Your task to perform on an android device: Search for flights from Chicago to London Image 0: 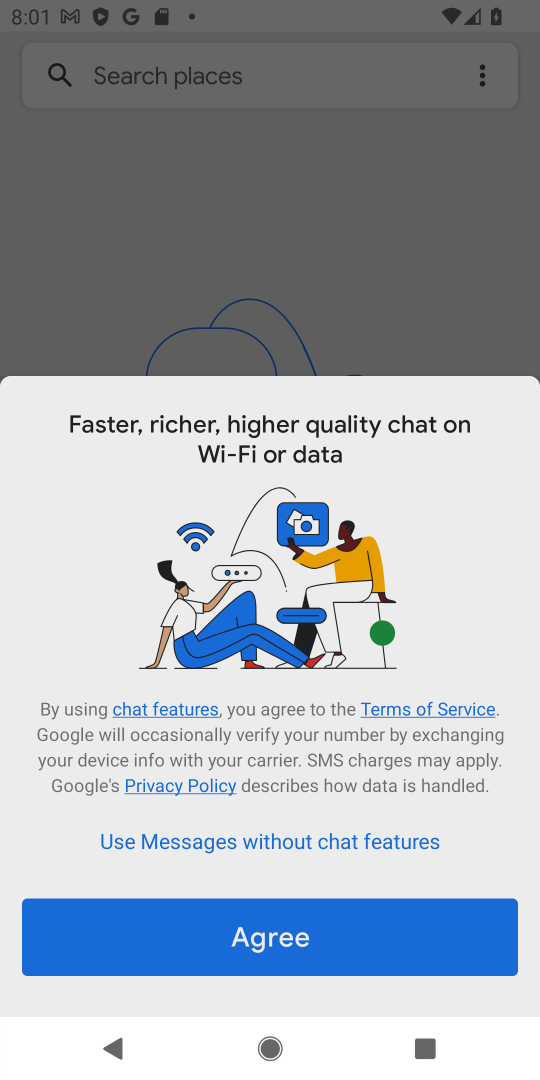
Step 0: click (286, 939)
Your task to perform on an android device: Search for flights from Chicago to London Image 1: 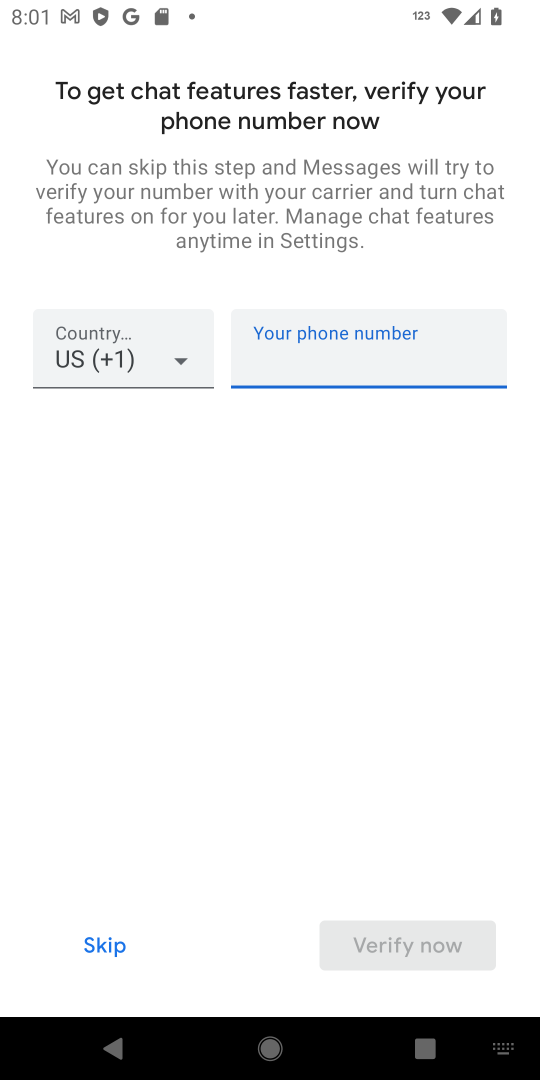
Step 1: click (115, 936)
Your task to perform on an android device: Search for flights from Chicago to London Image 2: 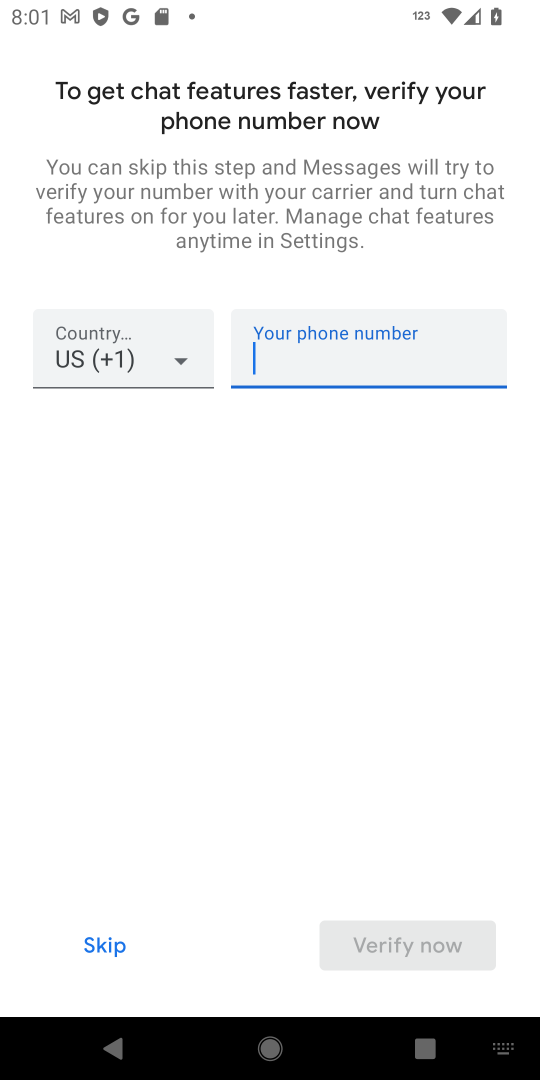
Step 2: press home button
Your task to perform on an android device: Search for flights from Chicago to London Image 3: 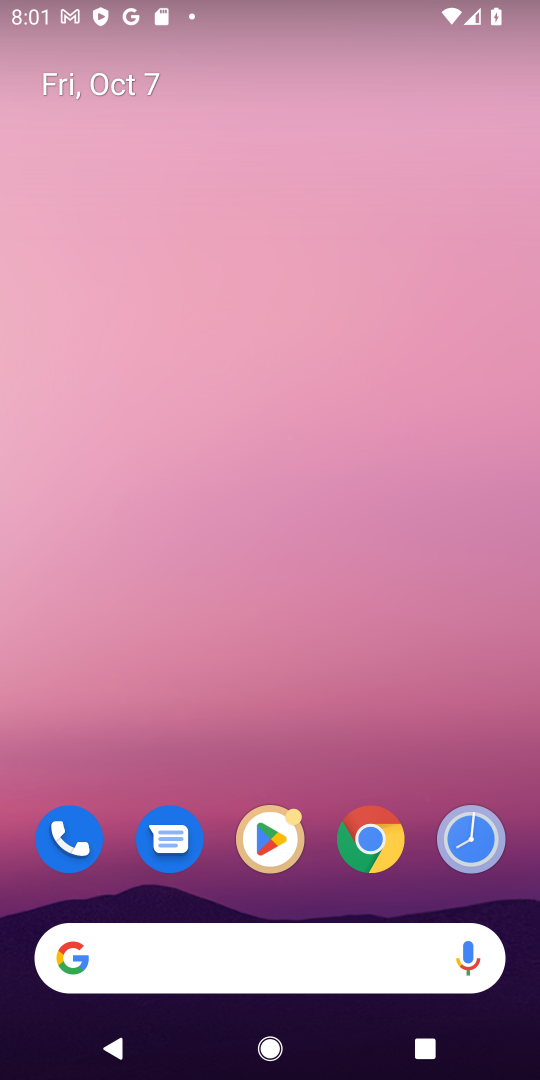
Step 3: click (380, 834)
Your task to perform on an android device: Search for flights from Chicago to London Image 4: 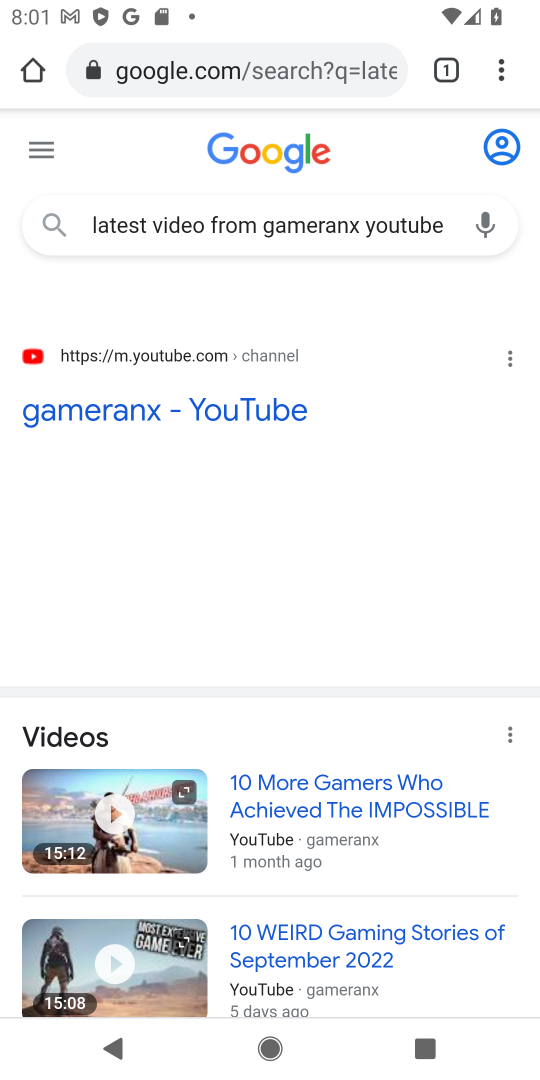
Step 4: click (318, 57)
Your task to perform on an android device: Search for flights from Chicago to London Image 5: 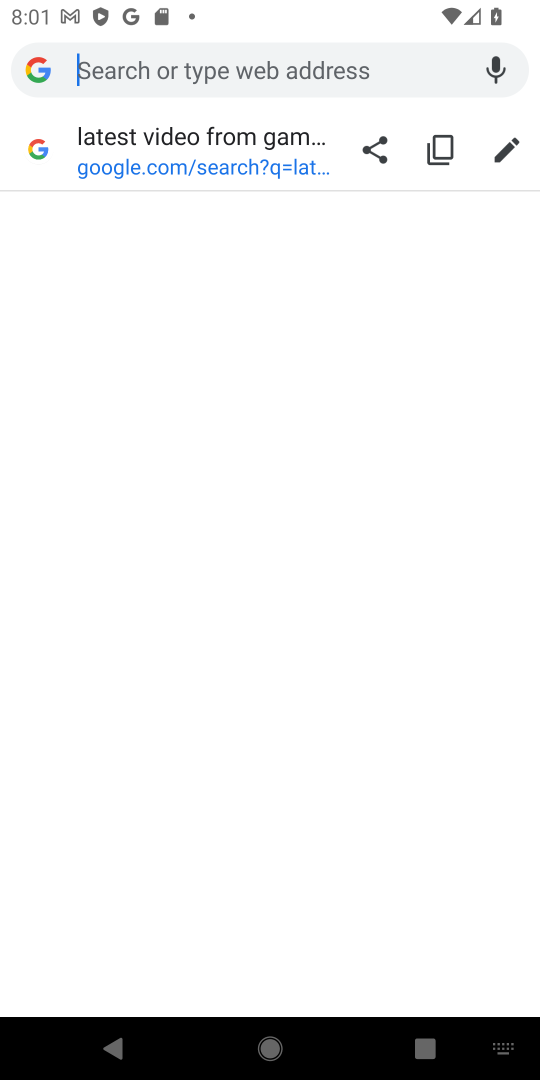
Step 5: type "flight search"
Your task to perform on an android device: Search for flights from Chicago to London Image 6: 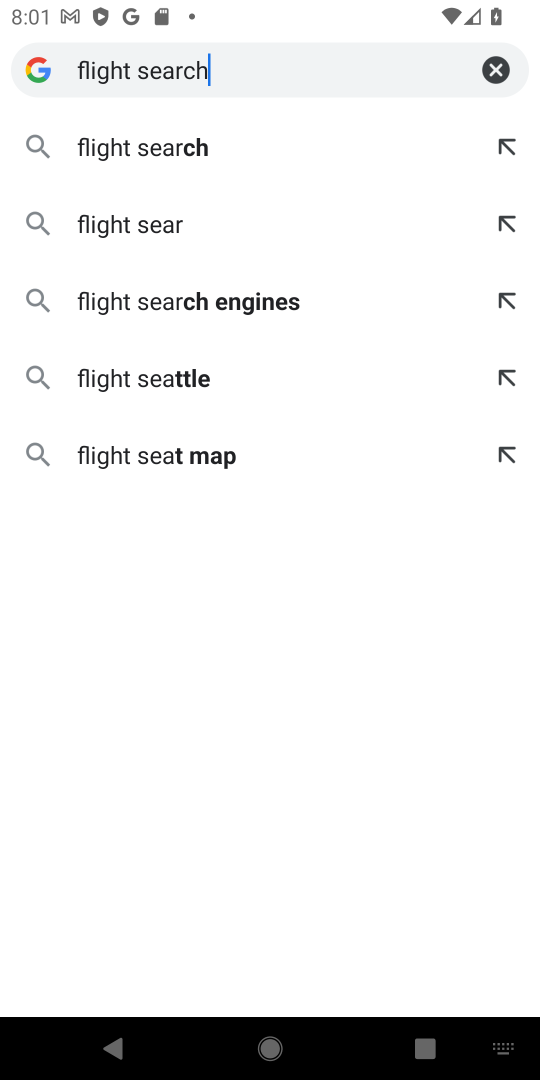
Step 6: type ""
Your task to perform on an android device: Search for flights from Chicago to London Image 7: 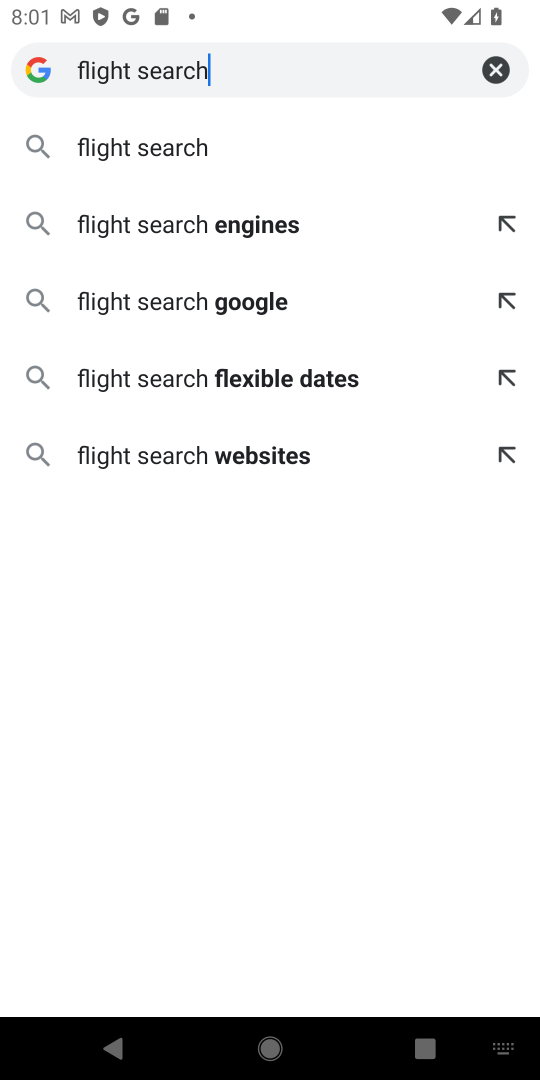
Step 7: click (171, 136)
Your task to perform on an android device: Search for flights from Chicago to London Image 8: 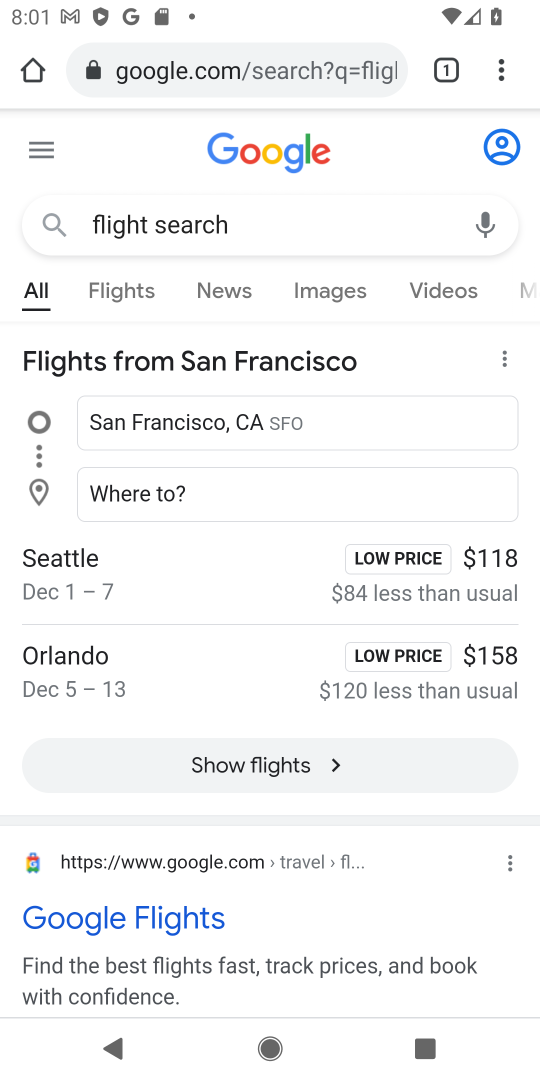
Step 8: drag from (307, 759) to (305, 969)
Your task to perform on an android device: Search for flights from Chicago to London Image 9: 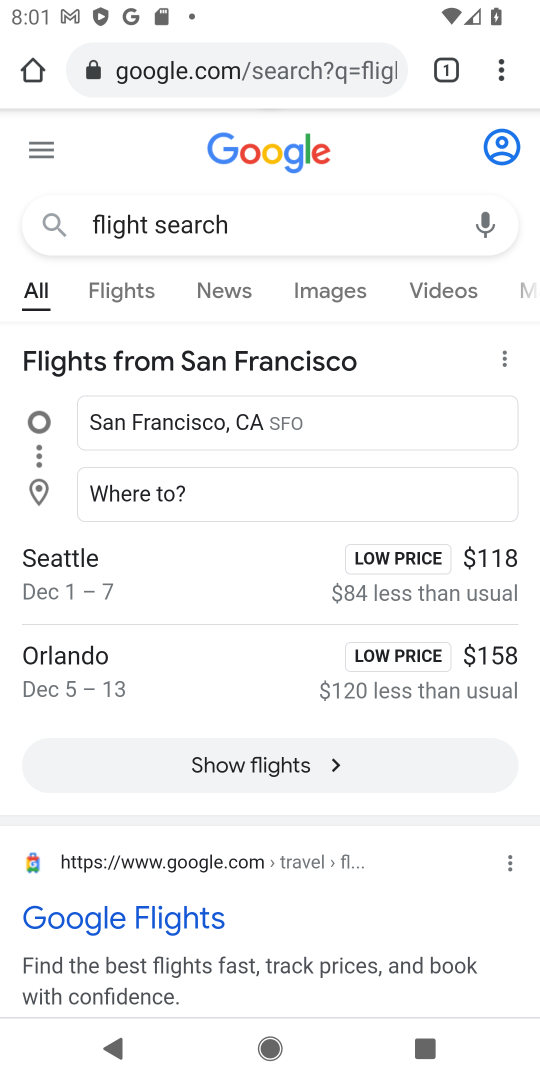
Step 9: drag from (355, 950) to (437, 405)
Your task to perform on an android device: Search for flights from Chicago to London Image 10: 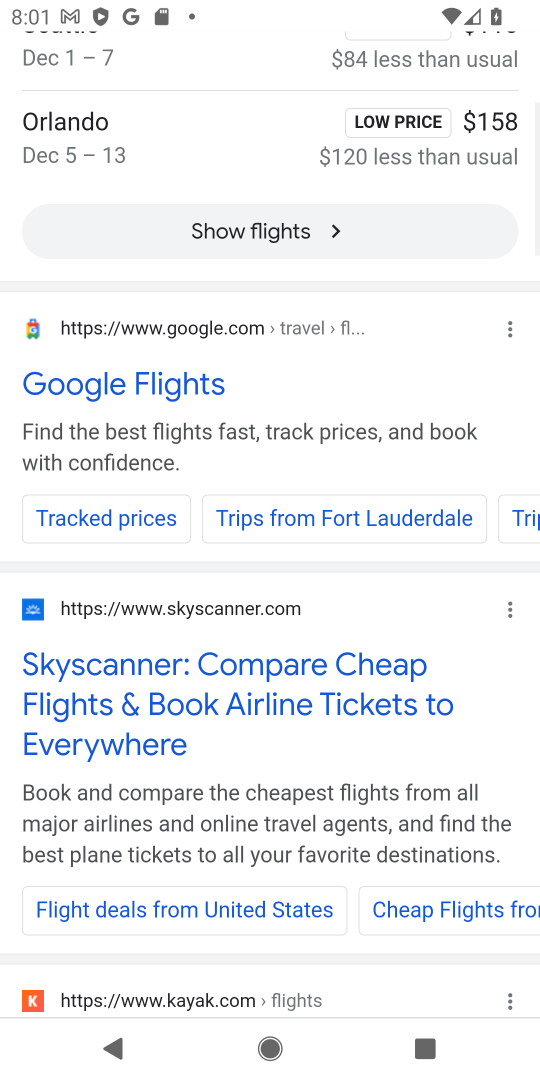
Step 10: drag from (336, 523) to (336, 472)
Your task to perform on an android device: Search for flights from Chicago to London Image 11: 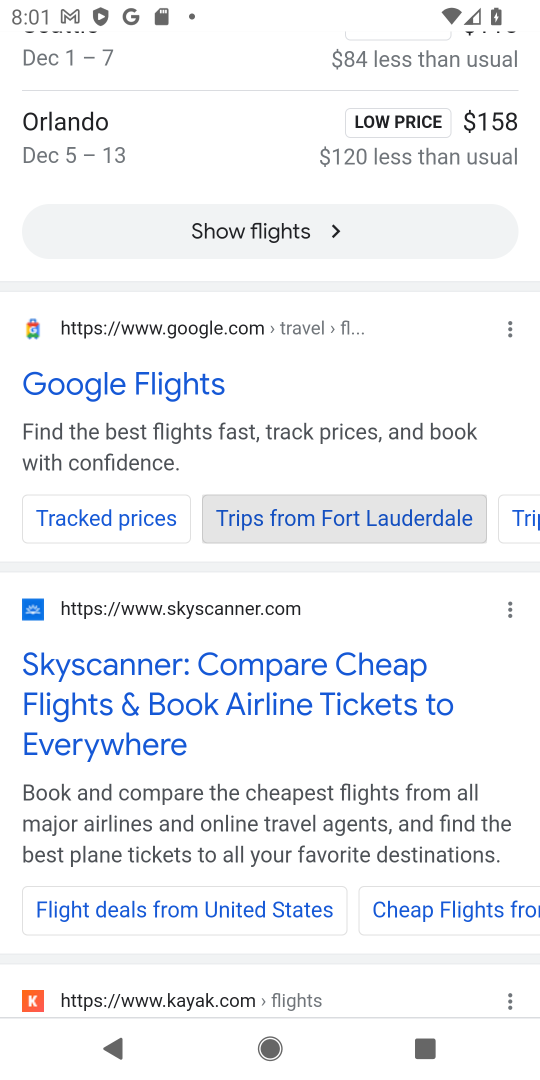
Step 11: drag from (212, 911) to (321, 425)
Your task to perform on an android device: Search for flights from Chicago to London Image 12: 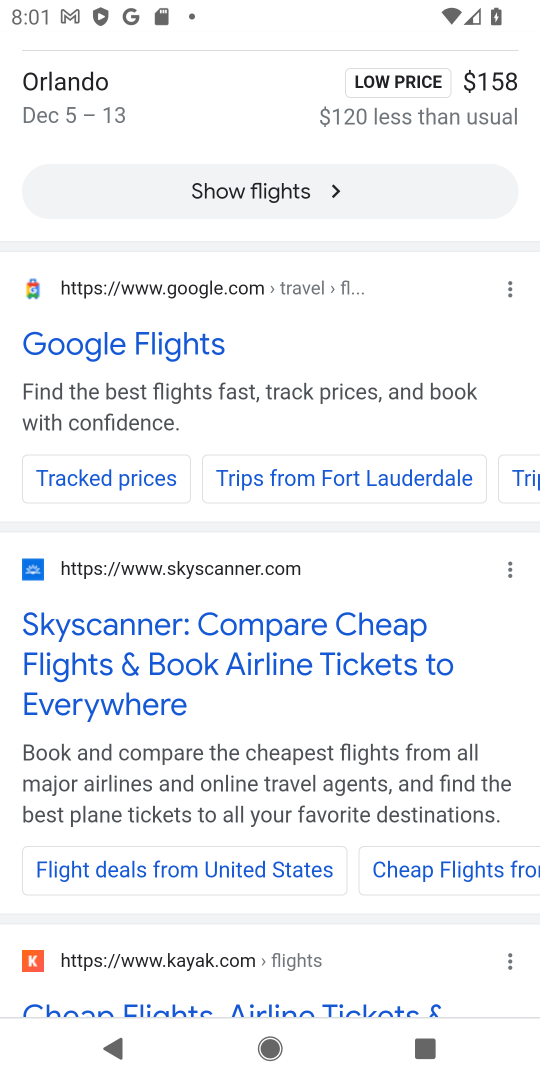
Step 12: drag from (267, 606) to (310, 392)
Your task to perform on an android device: Search for flights from Chicago to London Image 13: 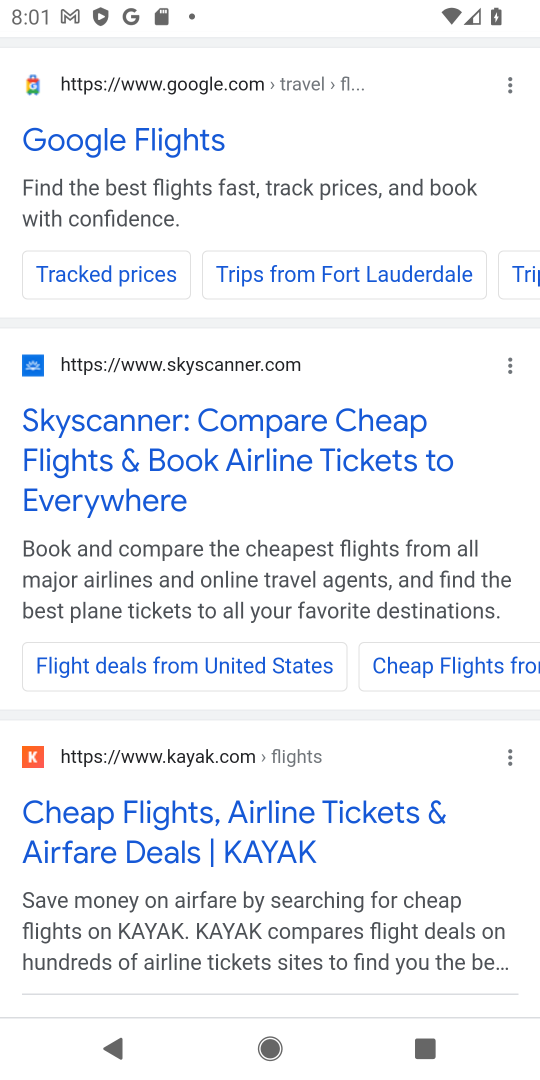
Step 13: click (153, 807)
Your task to perform on an android device: Search for flights from Chicago to London Image 14: 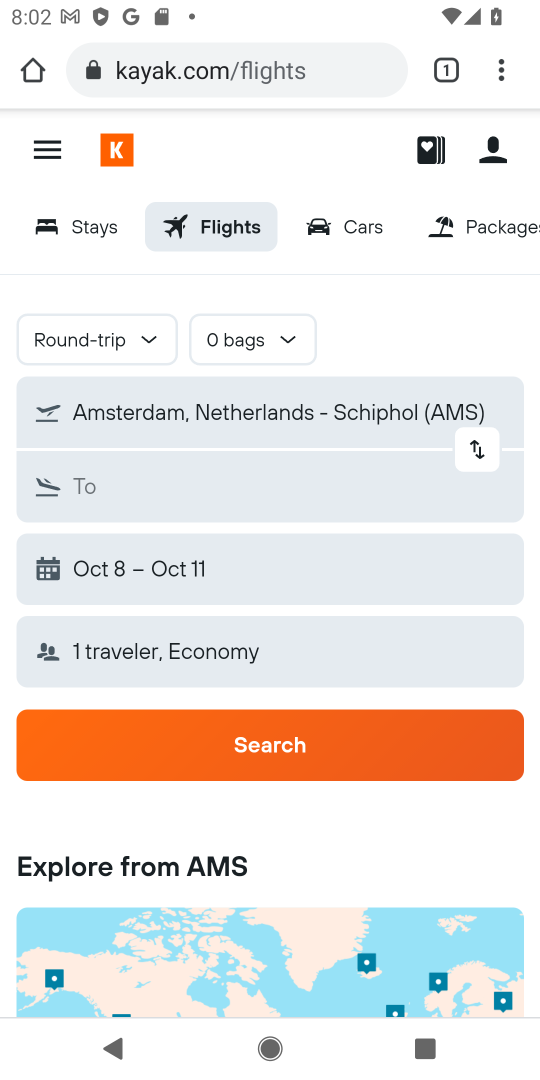
Step 14: click (357, 407)
Your task to perform on an android device: Search for flights from Chicago to London Image 15: 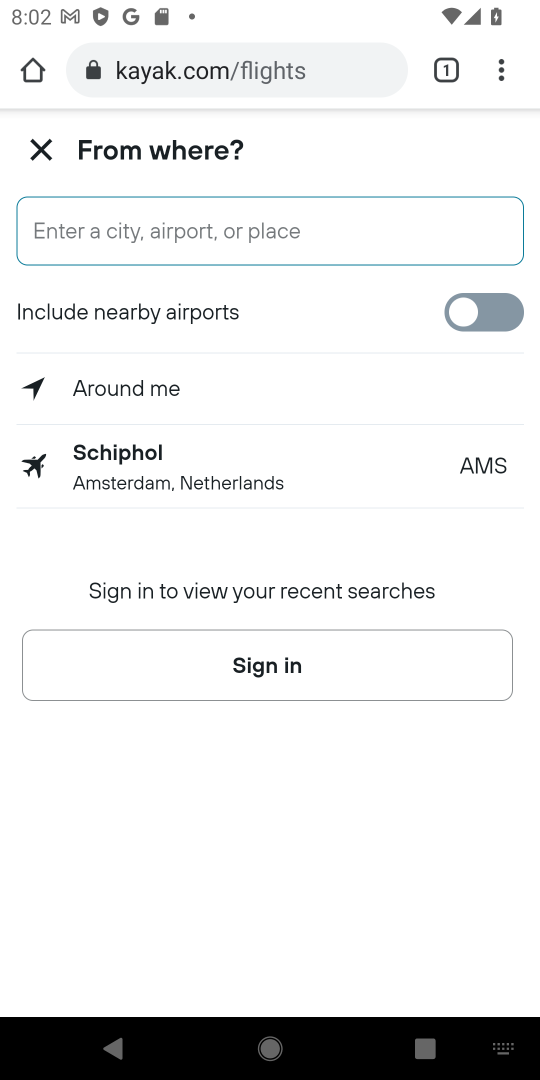
Step 15: type "chicago"
Your task to perform on an android device: Search for flights from Chicago to London Image 16: 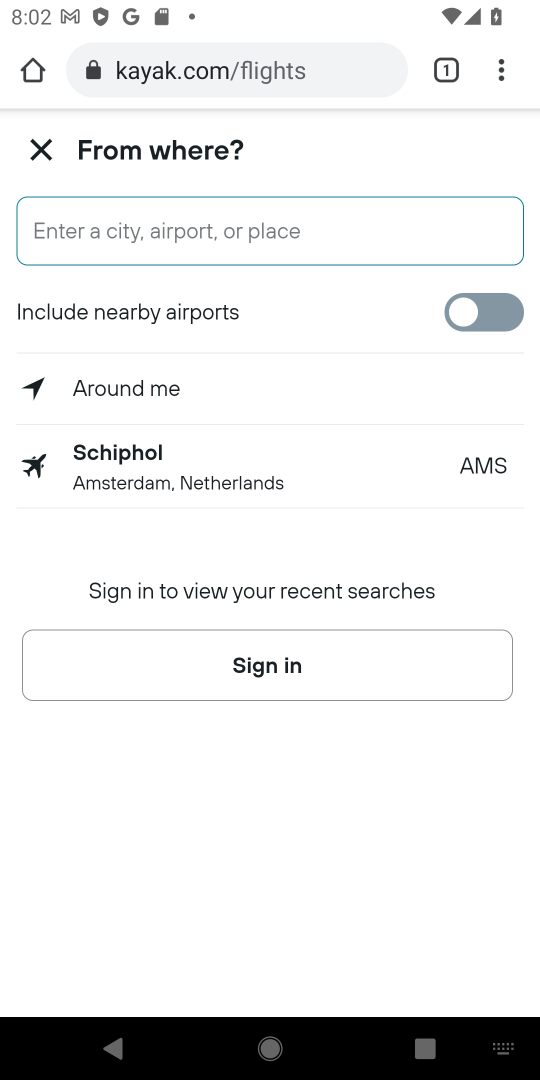
Step 16: click (301, 662)
Your task to perform on an android device: Search for flights from Chicago to London Image 17: 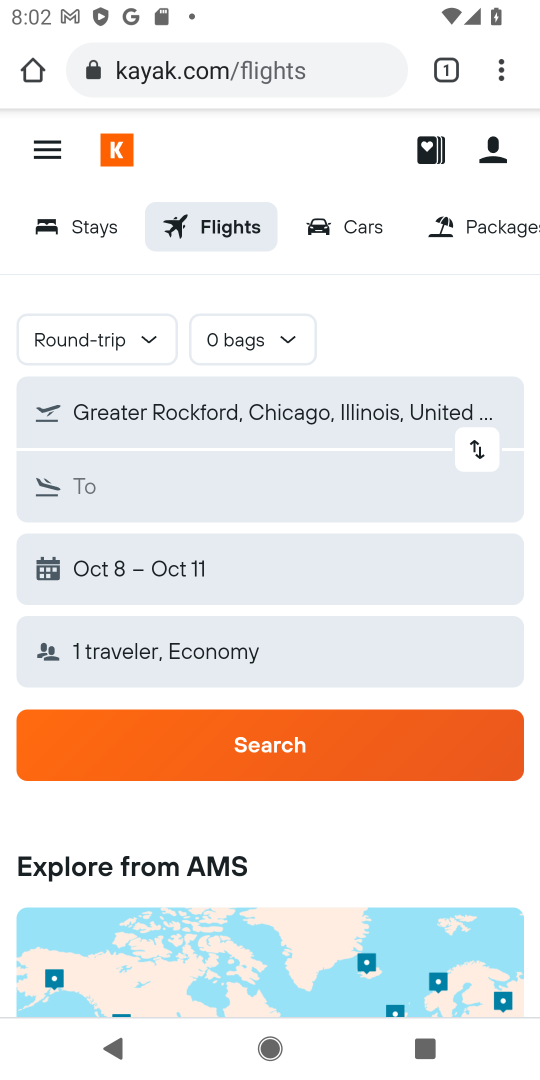
Step 17: click (65, 490)
Your task to perform on an android device: Search for flights from Chicago to London Image 18: 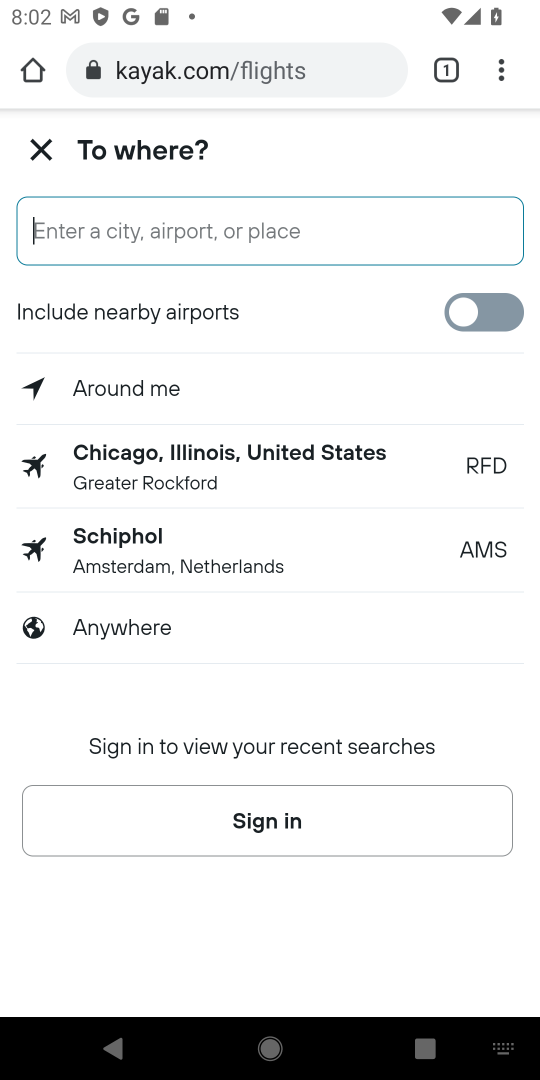
Step 18: type "london"
Your task to perform on an android device: Search for flights from Chicago to London Image 19: 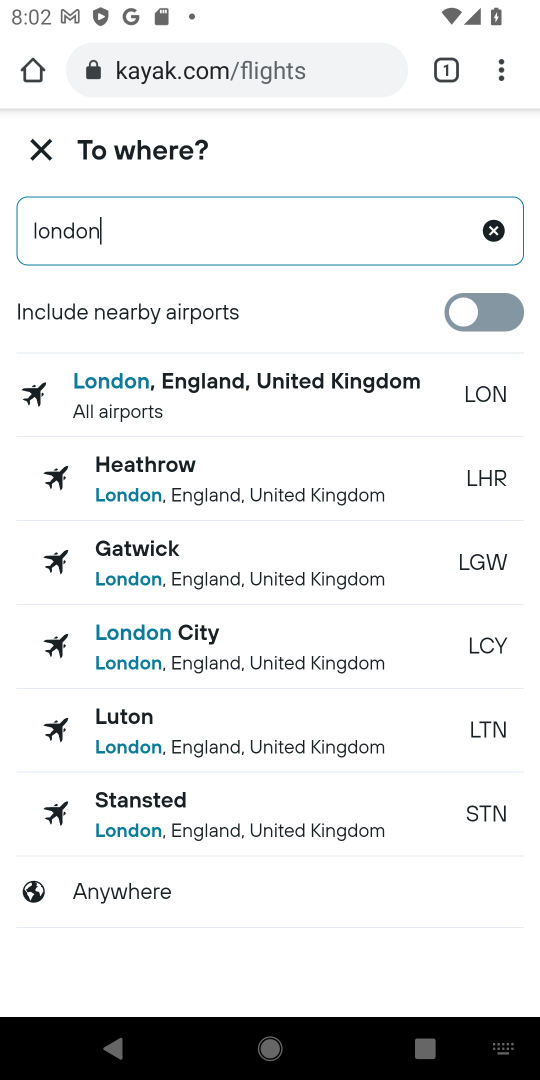
Step 19: click (223, 386)
Your task to perform on an android device: Search for flights from Chicago to London Image 20: 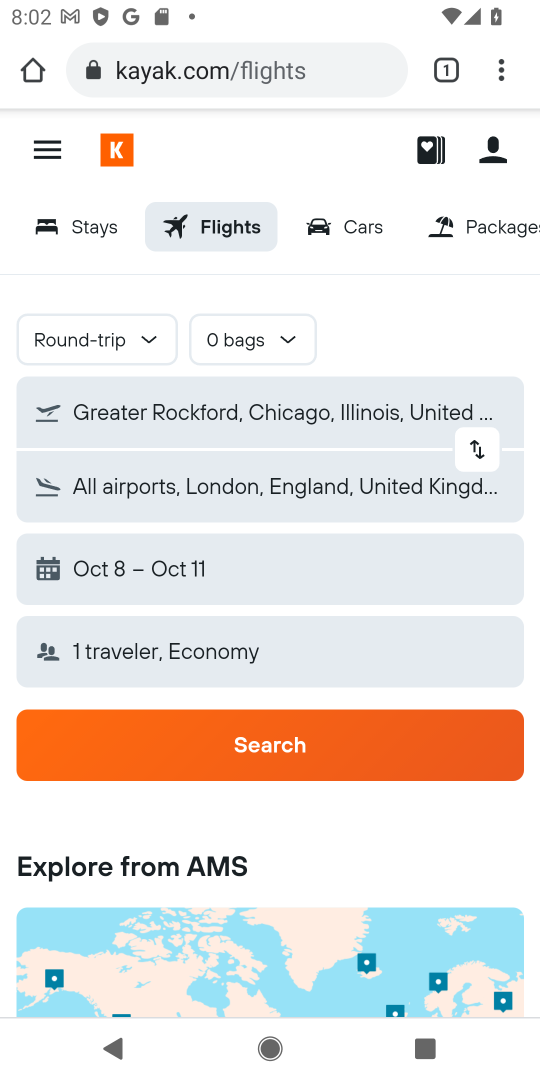
Step 20: click (160, 565)
Your task to perform on an android device: Search for flights from Chicago to London Image 21: 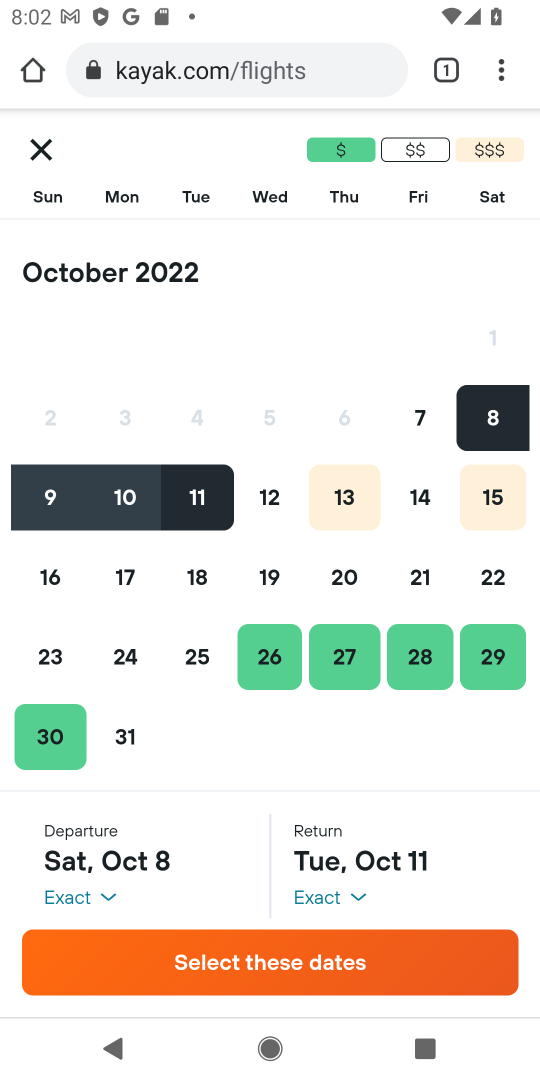
Step 21: click (129, 498)
Your task to perform on an android device: Search for flights from Chicago to London Image 22: 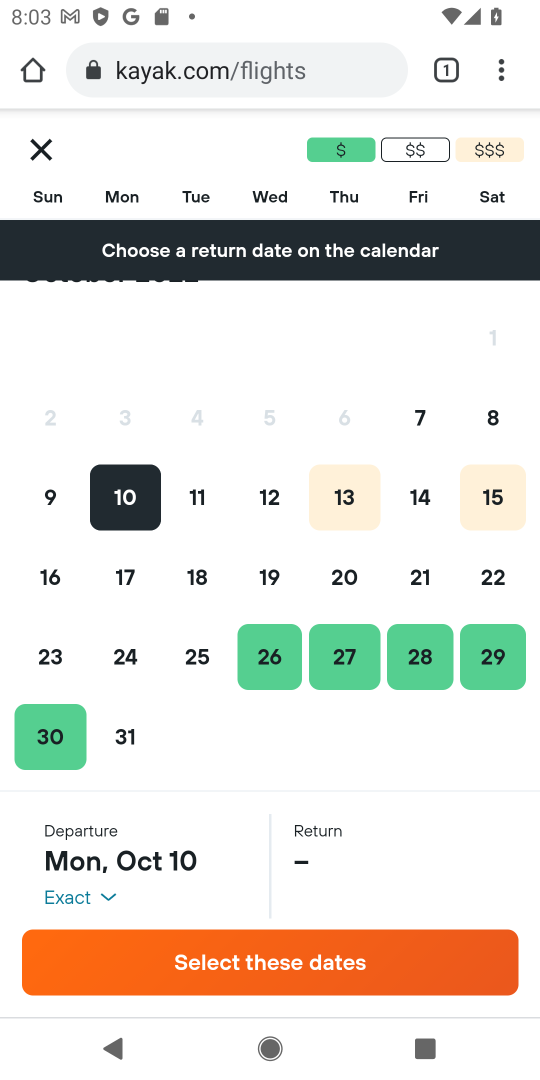
Step 22: click (317, 972)
Your task to perform on an android device: Search for flights from Chicago to London Image 23: 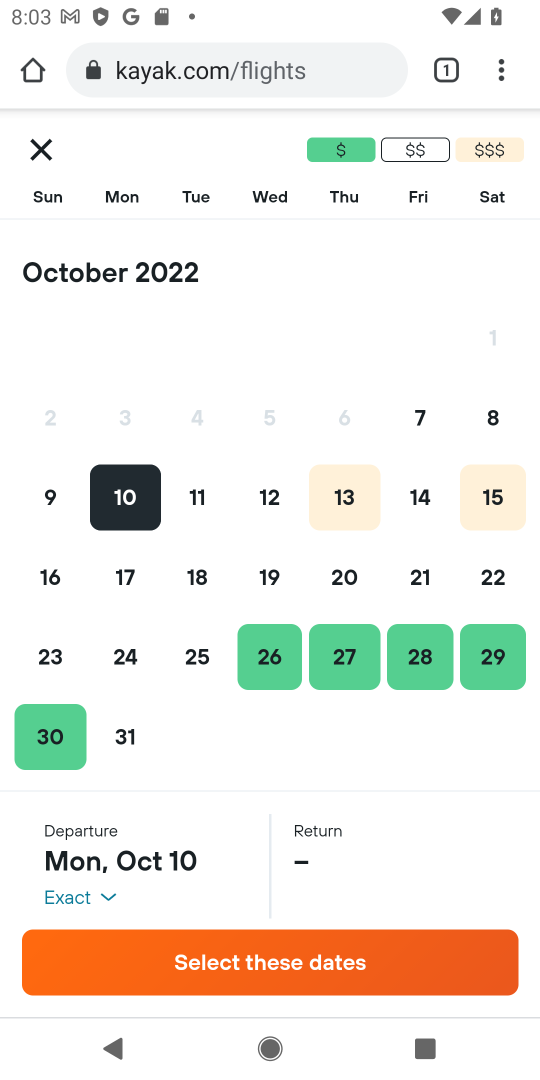
Step 23: click (331, 951)
Your task to perform on an android device: Search for flights from Chicago to London Image 24: 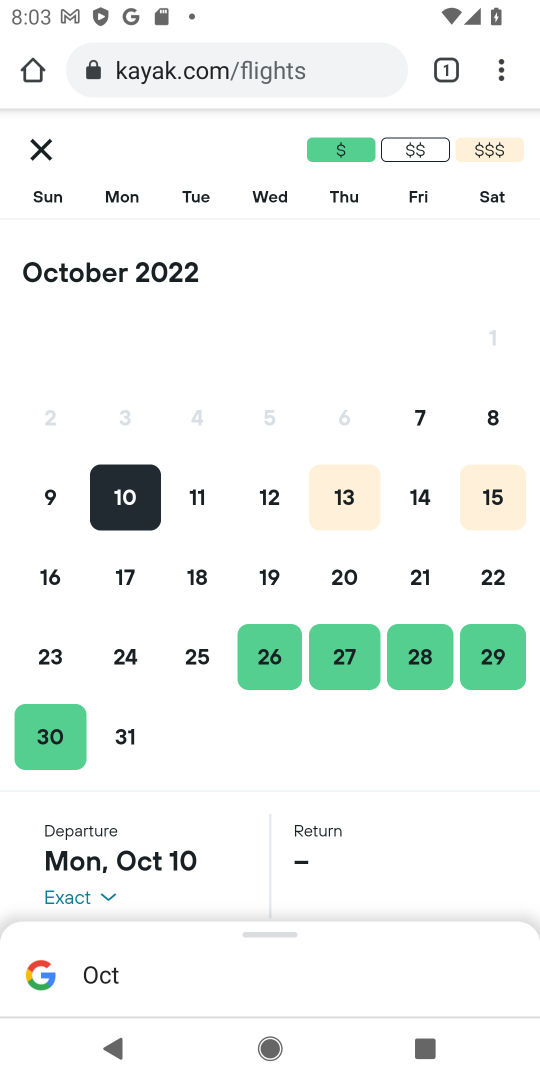
Step 24: click (132, 509)
Your task to perform on an android device: Search for flights from Chicago to London Image 25: 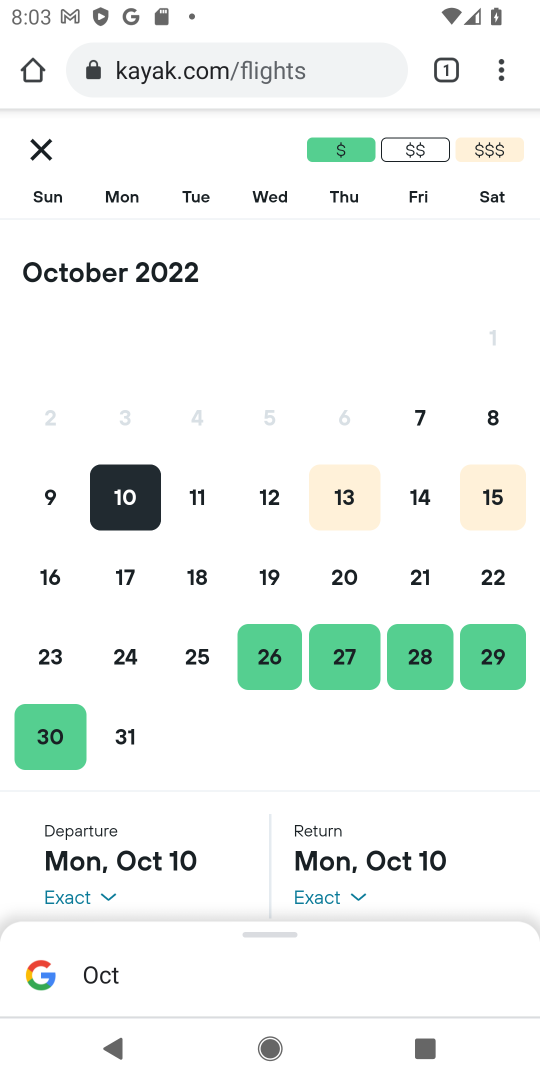
Step 25: click (465, 412)
Your task to perform on an android device: Search for flights from Chicago to London Image 26: 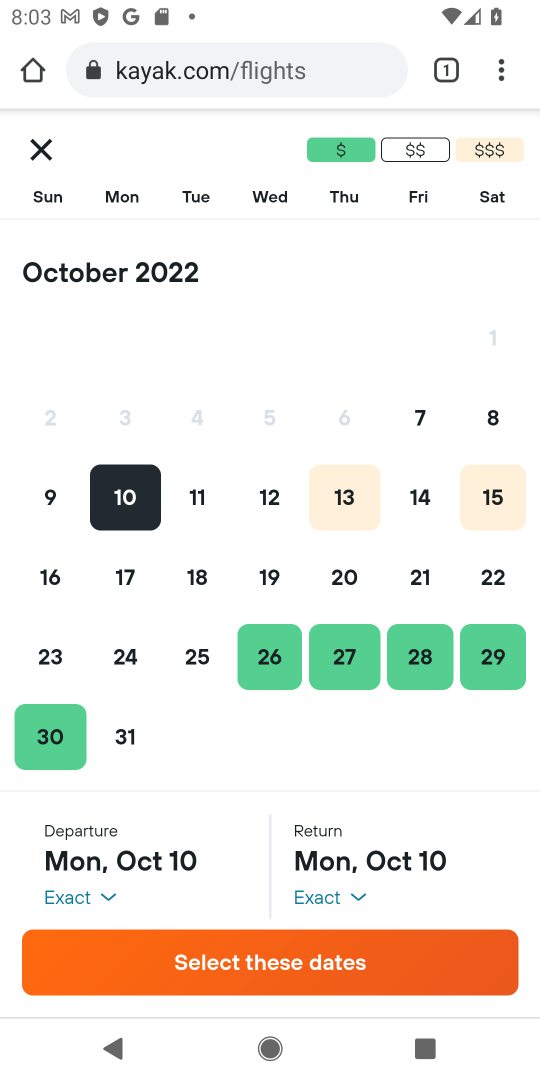
Step 26: click (339, 966)
Your task to perform on an android device: Search for flights from Chicago to London Image 27: 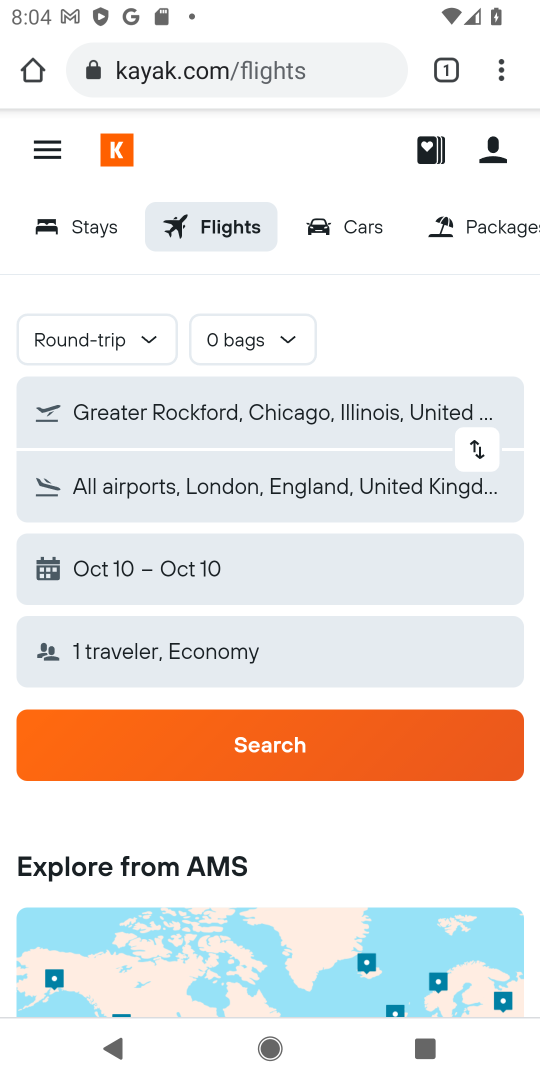
Step 27: click (254, 750)
Your task to perform on an android device: Search for flights from Chicago to London Image 28: 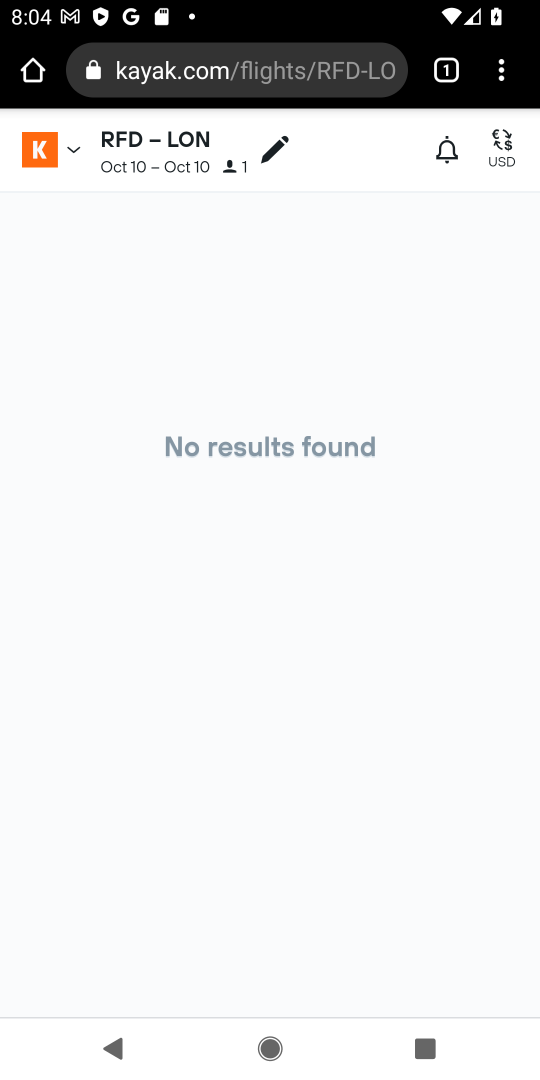
Step 28: drag from (346, 616) to (383, 421)
Your task to perform on an android device: Search for flights from Chicago to London Image 29: 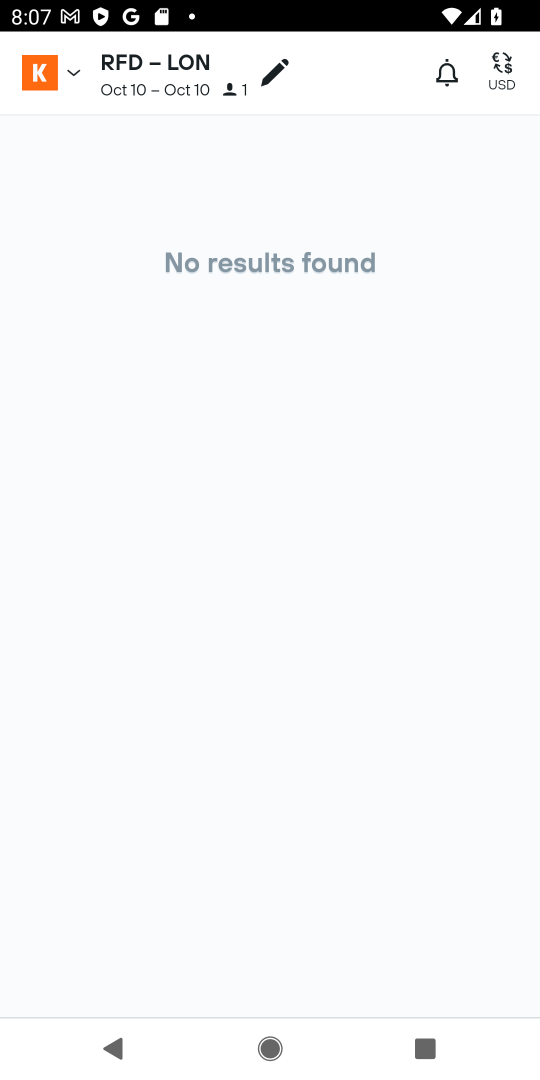
Step 29: press back button
Your task to perform on an android device: Search for flights from Chicago to London Image 30: 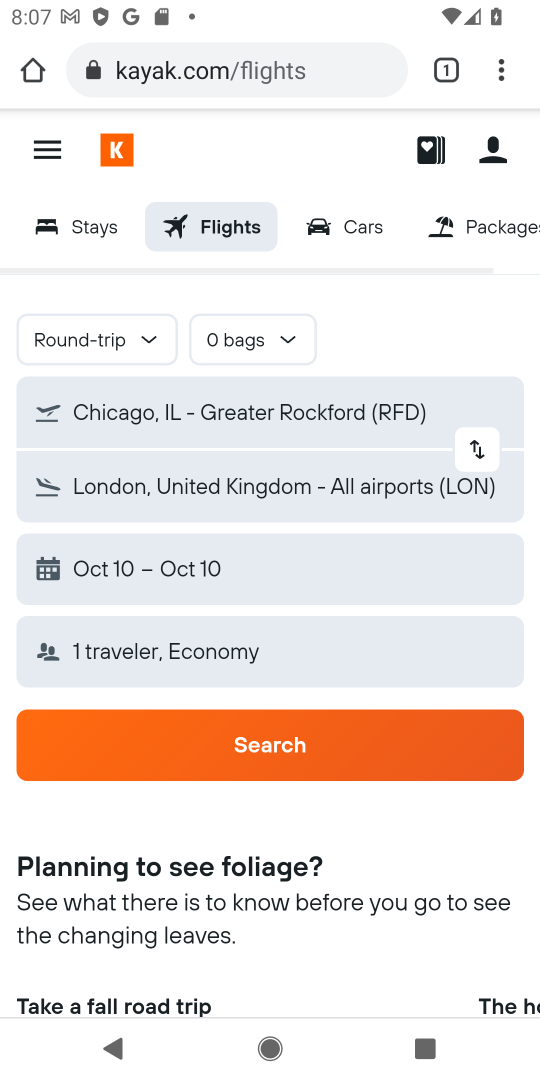
Step 30: click (284, 740)
Your task to perform on an android device: Search for flights from Chicago to London Image 31: 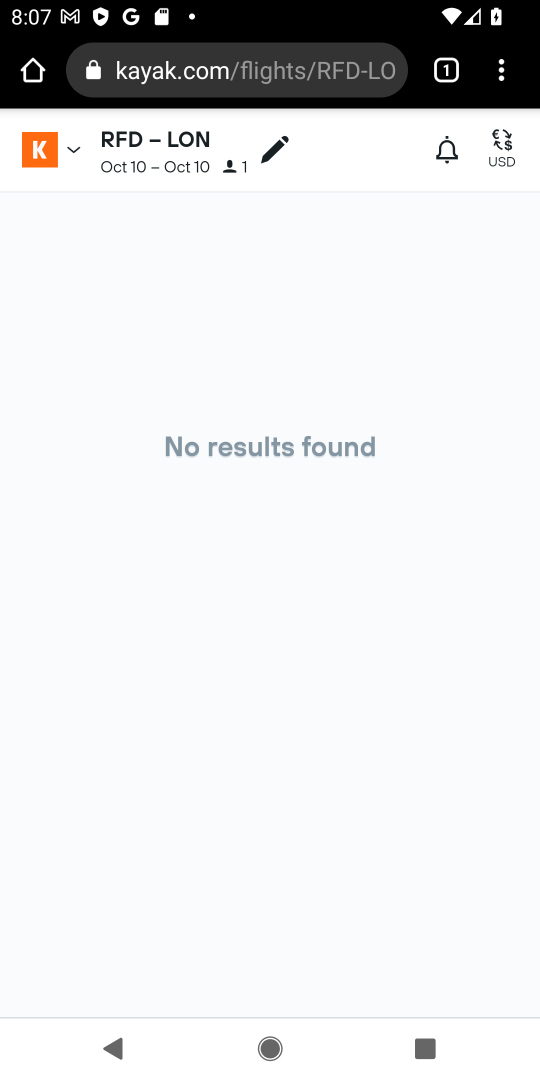
Step 31: press back button
Your task to perform on an android device: Search for flights from Chicago to London Image 32: 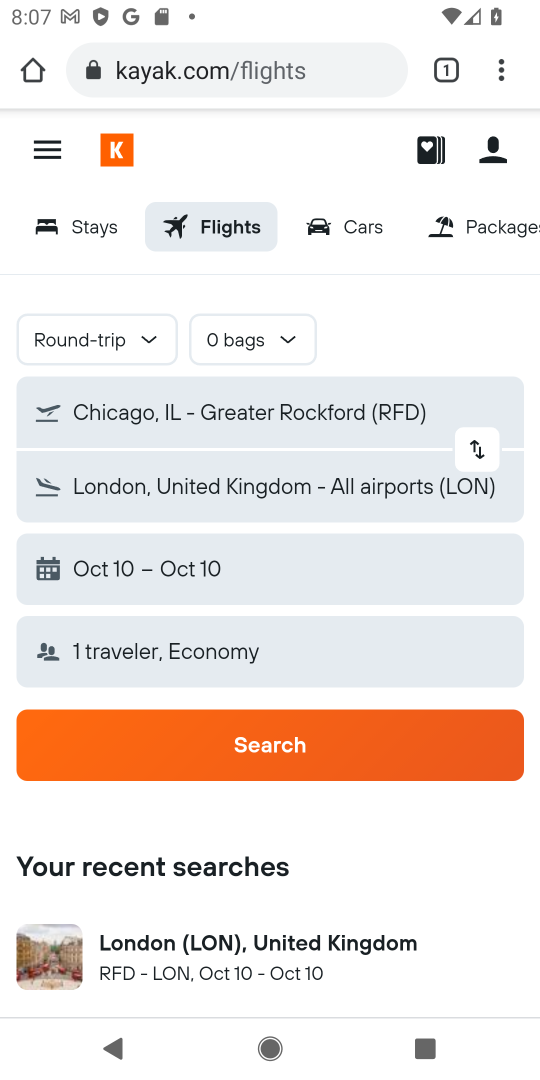
Step 32: click (193, 567)
Your task to perform on an android device: Search for flights from Chicago to London Image 33: 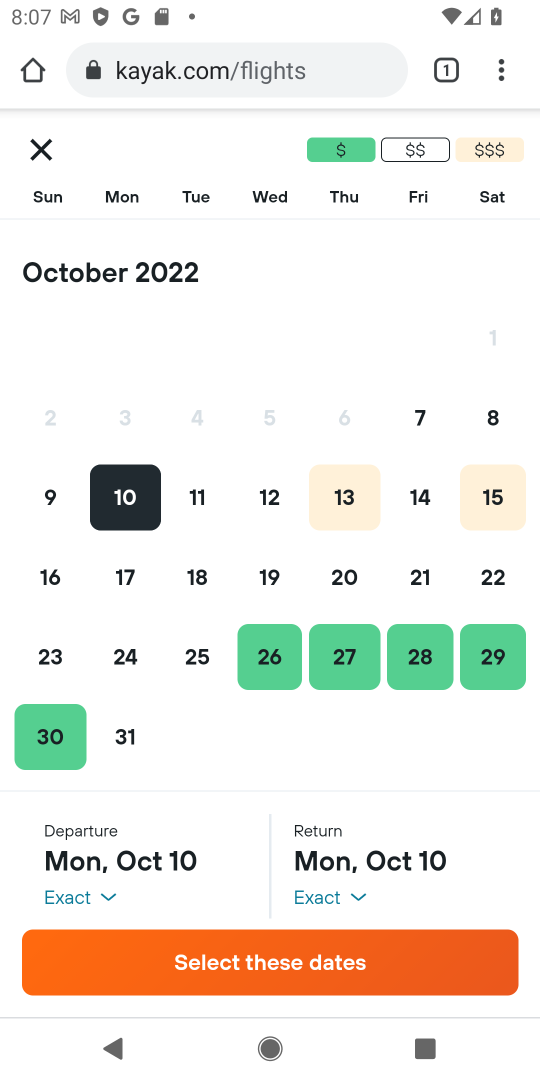
Step 33: click (206, 495)
Your task to perform on an android device: Search for flights from Chicago to London Image 34: 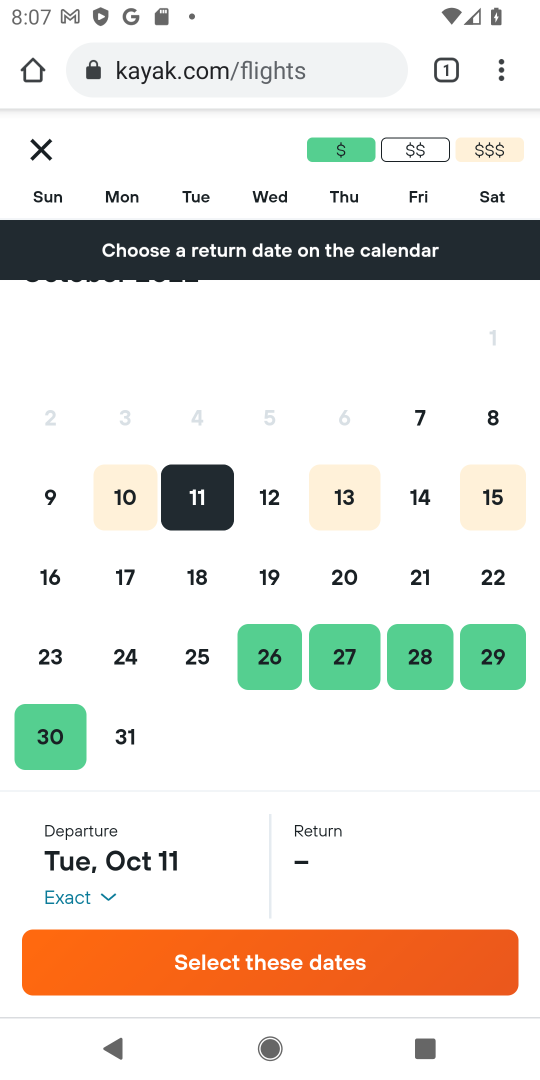
Step 34: click (259, 954)
Your task to perform on an android device: Search for flights from Chicago to London Image 35: 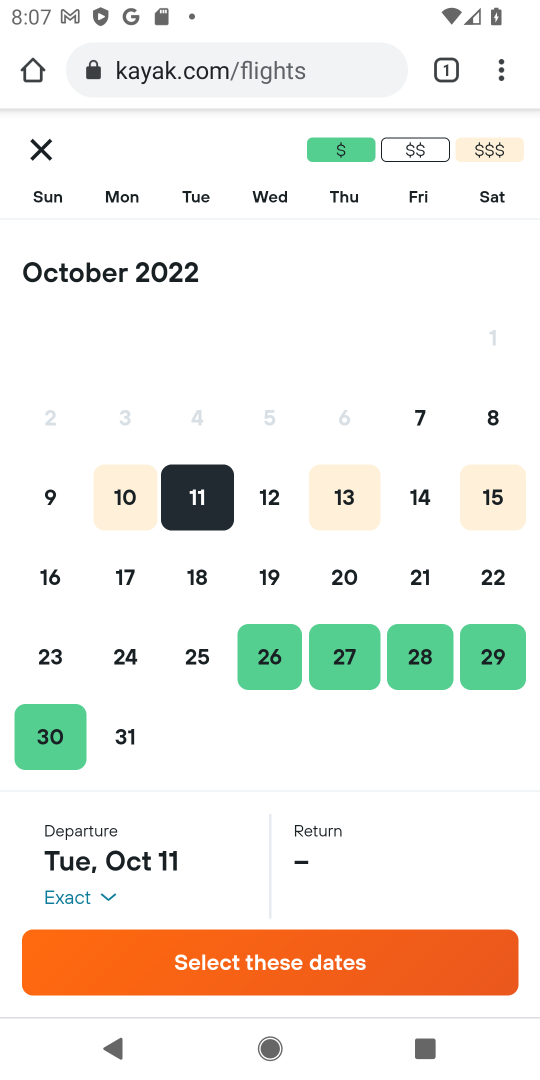
Step 35: click (500, 497)
Your task to perform on an android device: Search for flights from Chicago to London Image 36: 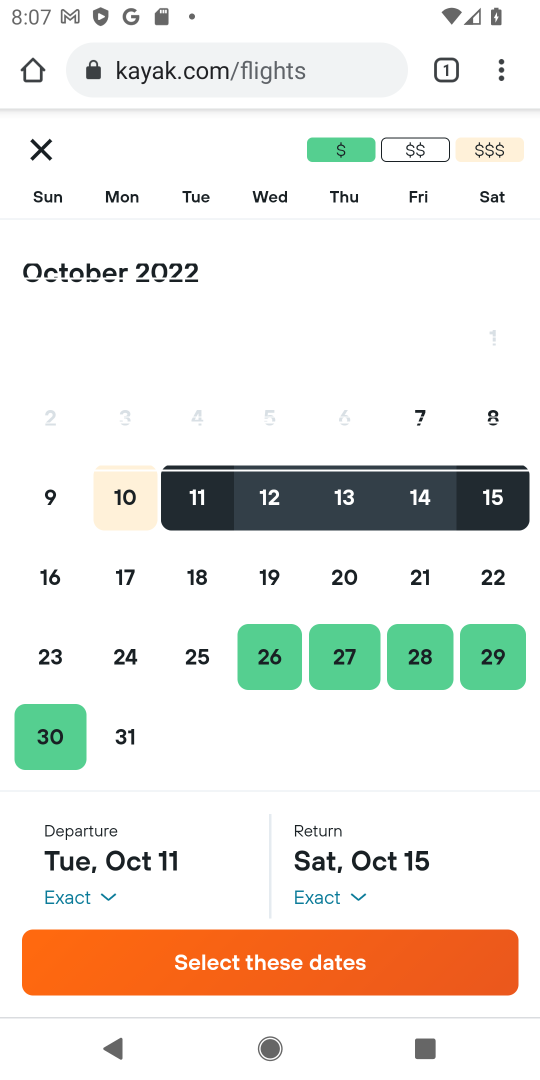
Step 36: click (312, 968)
Your task to perform on an android device: Search for flights from Chicago to London Image 37: 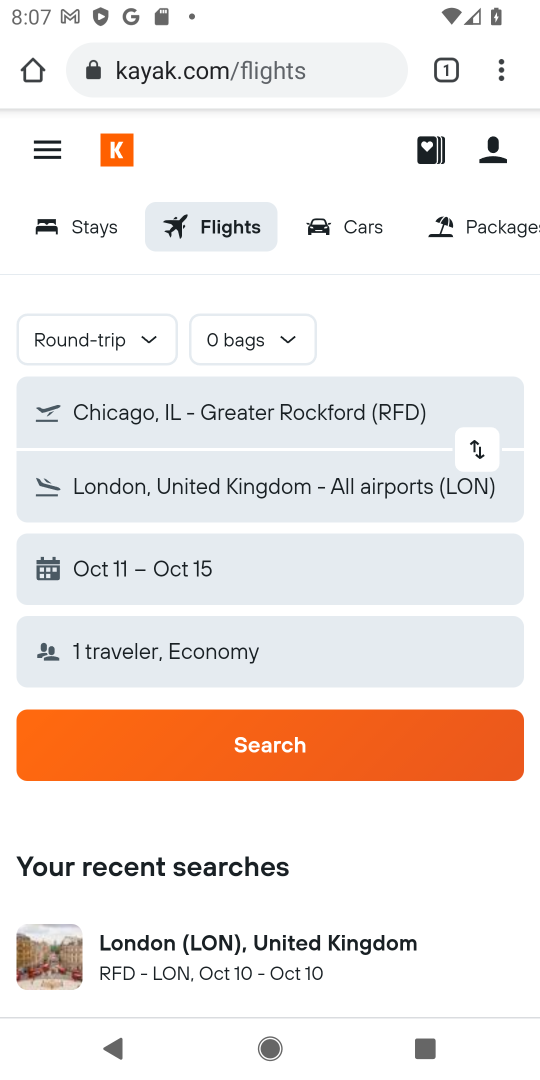
Step 37: click (248, 769)
Your task to perform on an android device: Search for flights from Chicago to London Image 38: 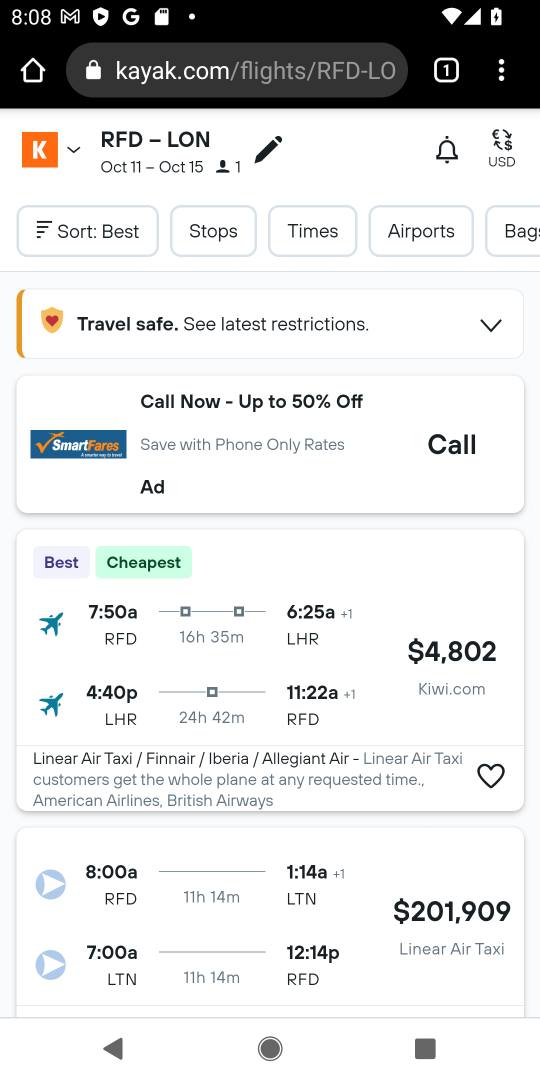
Step 38: task complete